Your task to perform on an android device: set an alarm Image 0: 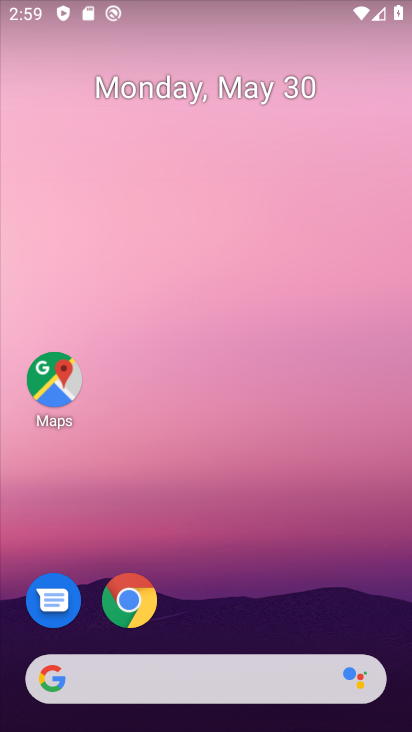
Step 0: drag from (222, 725) to (222, 47)
Your task to perform on an android device: set an alarm Image 1: 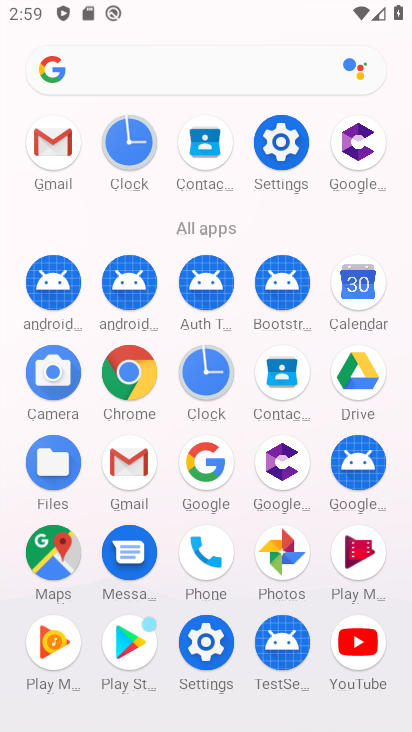
Step 1: click (200, 386)
Your task to perform on an android device: set an alarm Image 2: 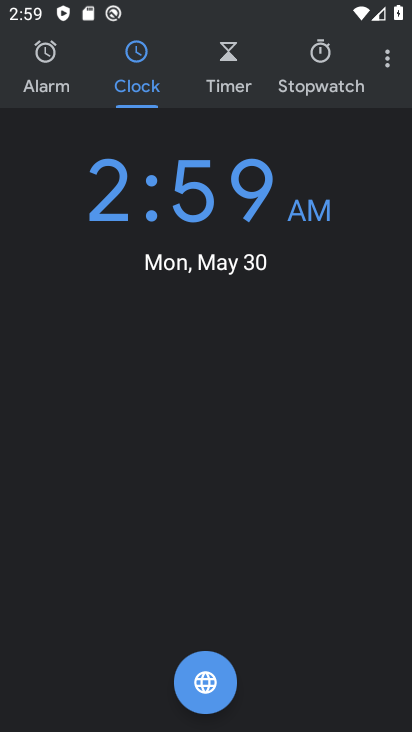
Step 2: click (53, 59)
Your task to perform on an android device: set an alarm Image 3: 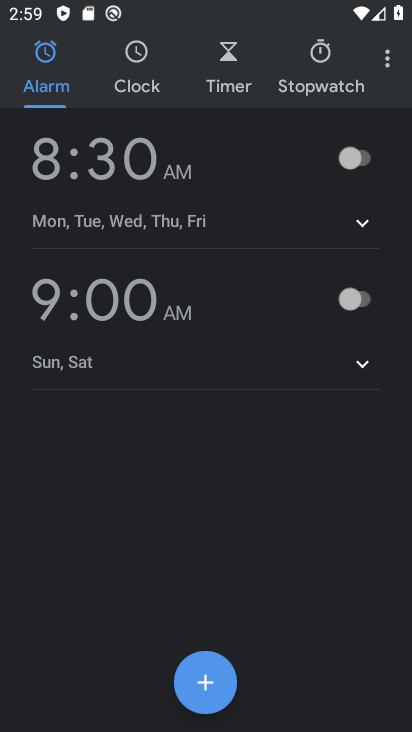
Step 3: click (203, 682)
Your task to perform on an android device: set an alarm Image 4: 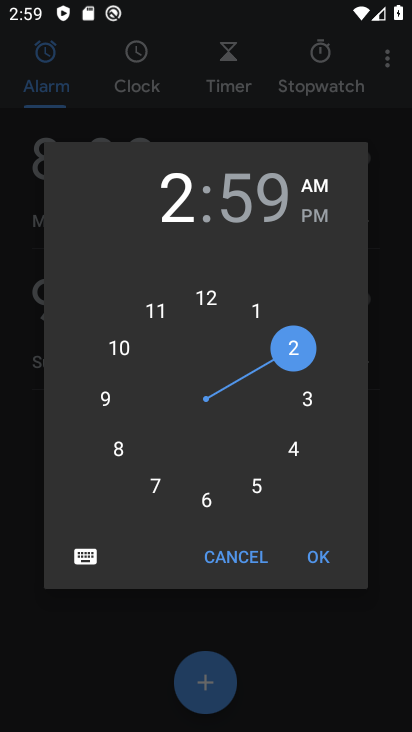
Step 4: click (209, 498)
Your task to perform on an android device: set an alarm Image 5: 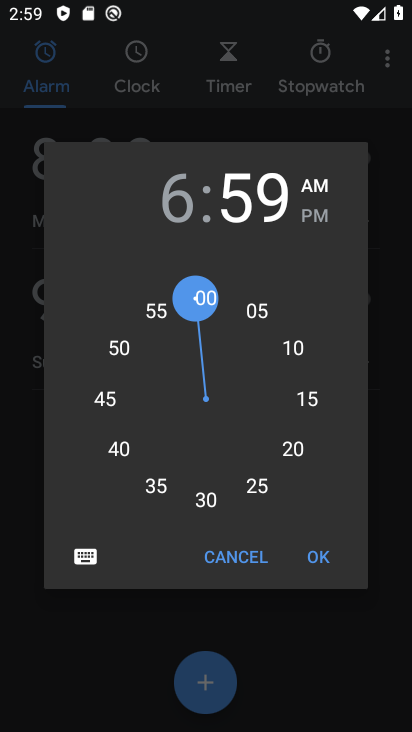
Step 5: click (317, 559)
Your task to perform on an android device: set an alarm Image 6: 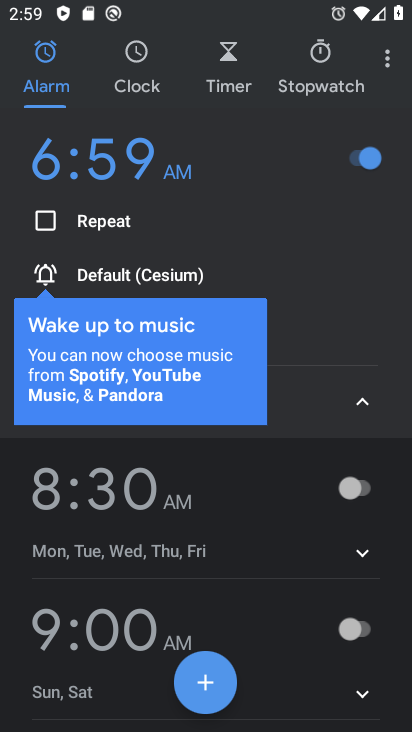
Step 6: task complete